Your task to perform on an android device: clear history in the chrome app Image 0: 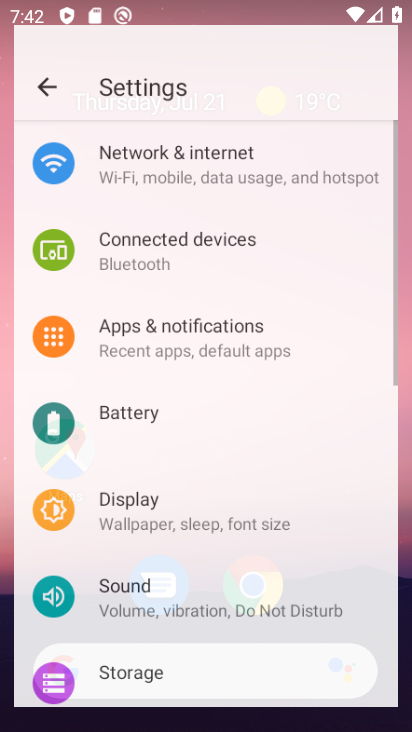
Step 0: press home button
Your task to perform on an android device: clear history in the chrome app Image 1: 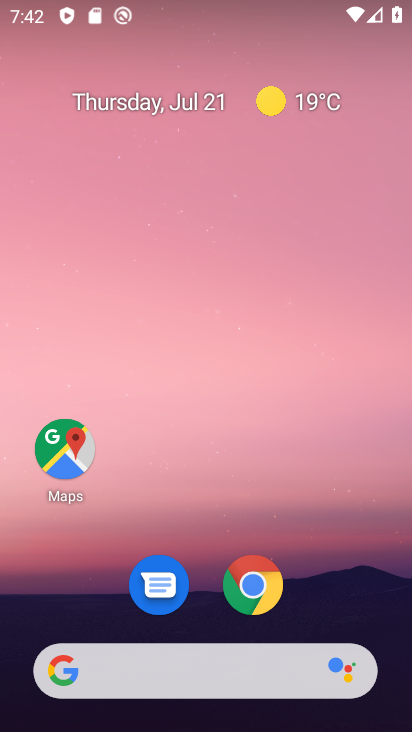
Step 1: click (261, 583)
Your task to perform on an android device: clear history in the chrome app Image 2: 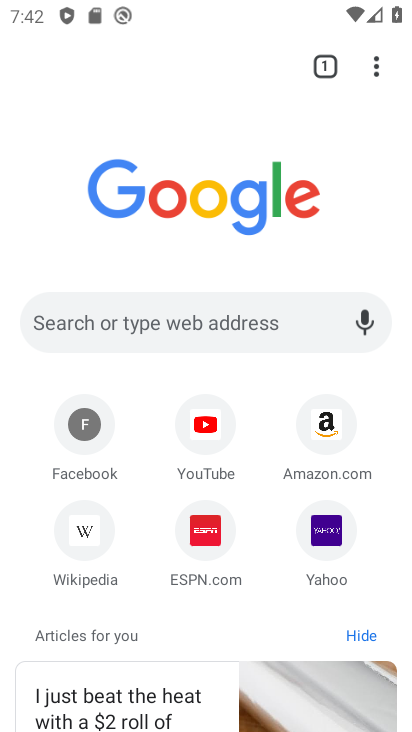
Step 2: click (378, 67)
Your task to perform on an android device: clear history in the chrome app Image 3: 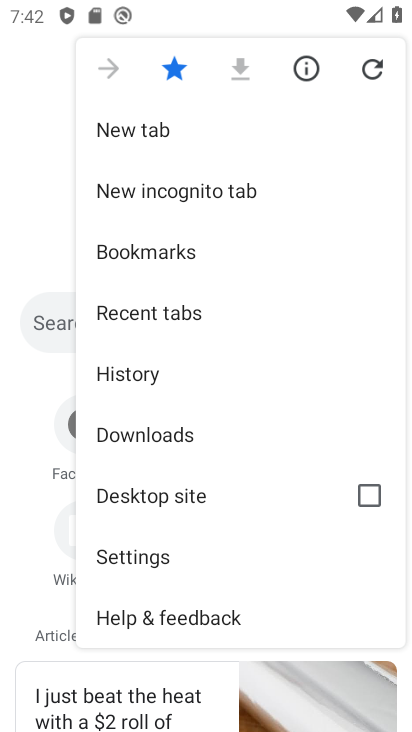
Step 3: click (146, 369)
Your task to perform on an android device: clear history in the chrome app Image 4: 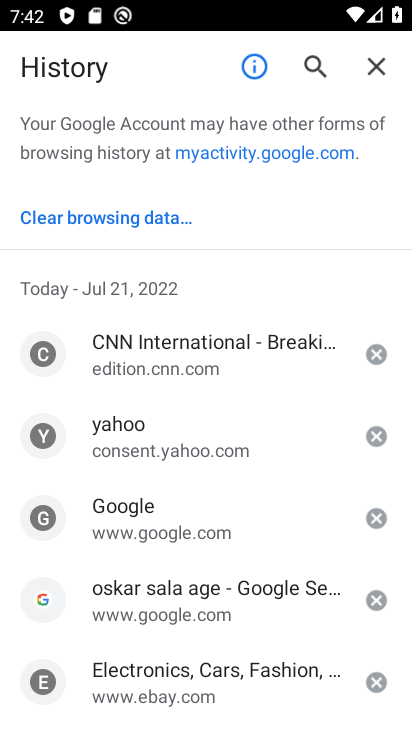
Step 4: click (134, 214)
Your task to perform on an android device: clear history in the chrome app Image 5: 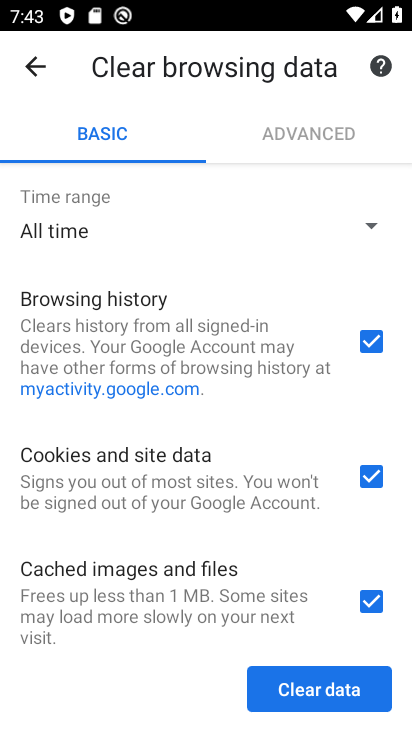
Step 5: click (370, 476)
Your task to perform on an android device: clear history in the chrome app Image 6: 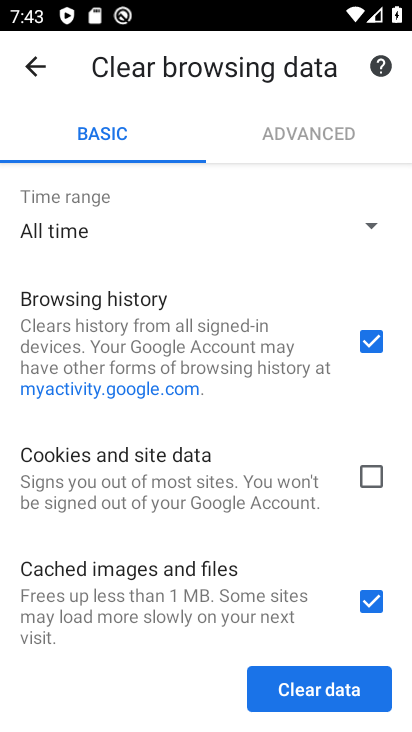
Step 6: click (368, 607)
Your task to perform on an android device: clear history in the chrome app Image 7: 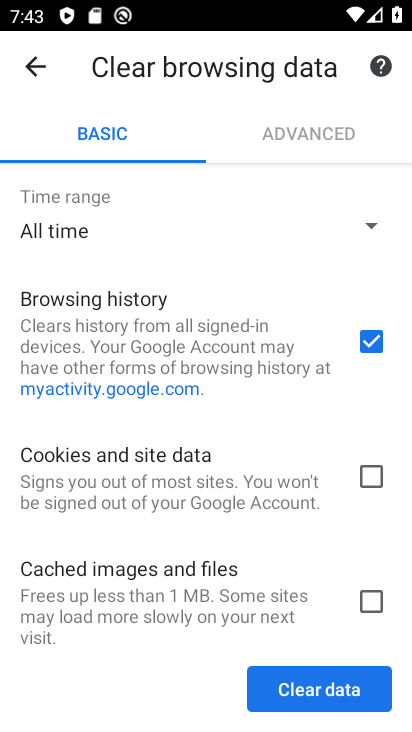
Step 7: click (353, 683)
Your task to perform on an android device: clear history in the chrome app Image 8: 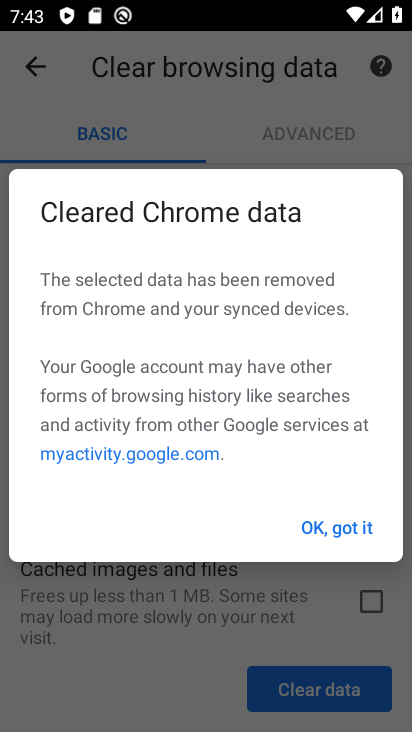
Step 8: click (355, 525)
Your task to perform on an android device: clear history in the chrome app Image 9: 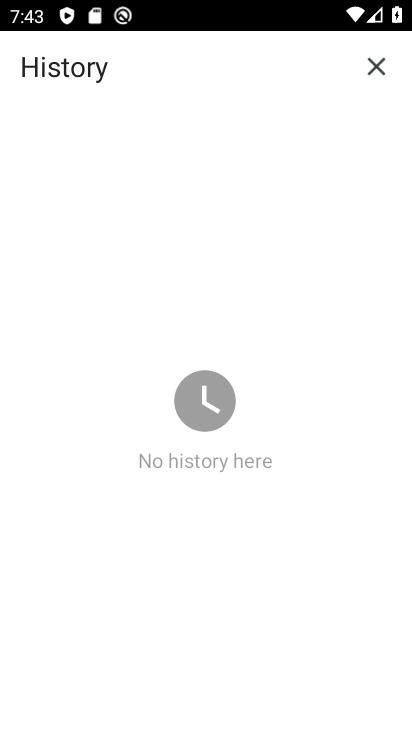
Step 9: task complete